Your task to perform on an android device: Open network settings Image 0: 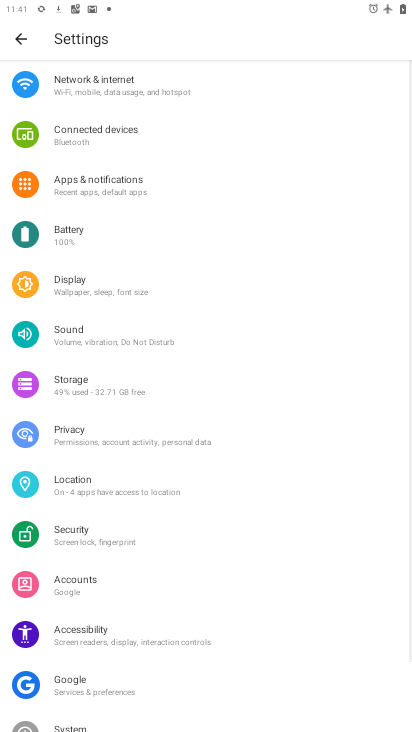
Step 0: click (102, 91)
Your task to perform on an android device: Open network settings Image 1: 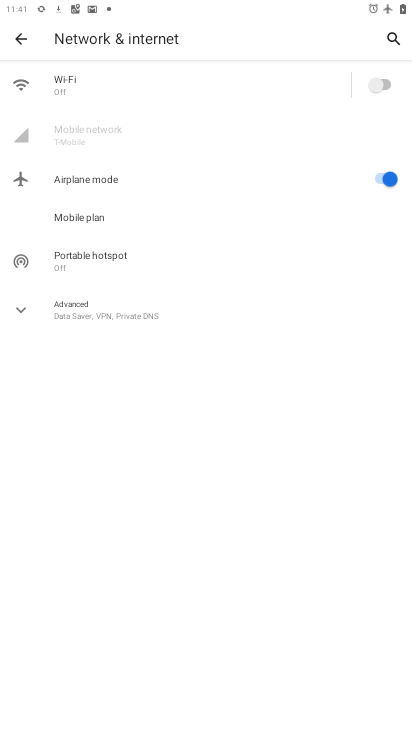
Step 1: drag from (277, 479) to (288, 119)
Your task to perform on an android device: Open network settings Image 2: 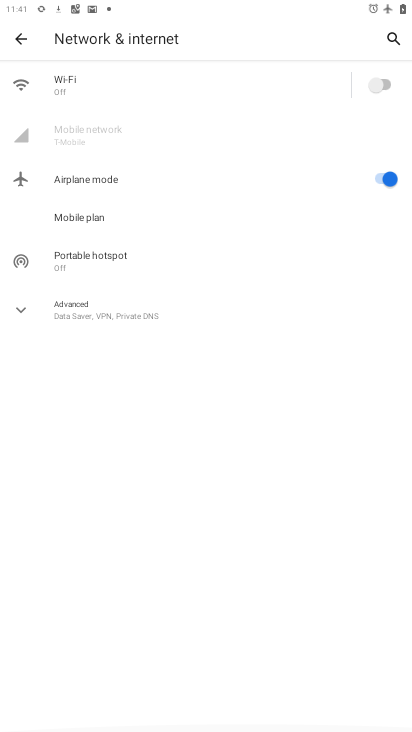
Step 2: click (69, 297)
Your task to perform on an android device: Open network settings Image 3: 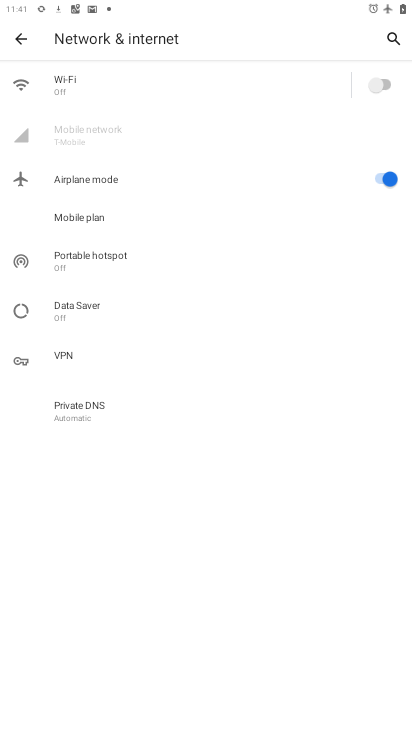
Step 3: task complete